Your task to perform on an android device: Go to sound settings Image 0: 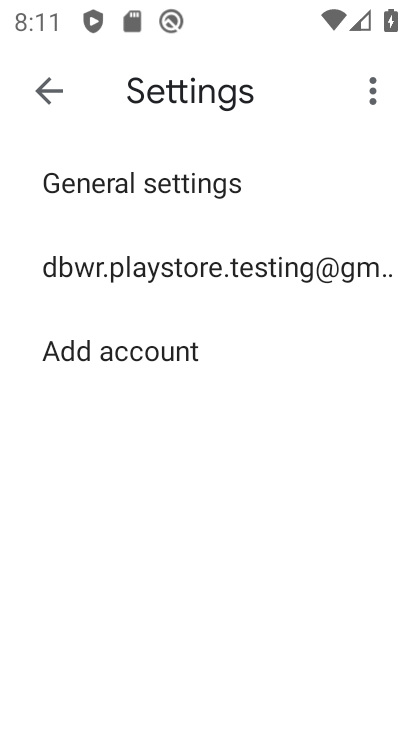
Step 0: press home button
Your task to perform on an android device: Go to sound settings Image 1: 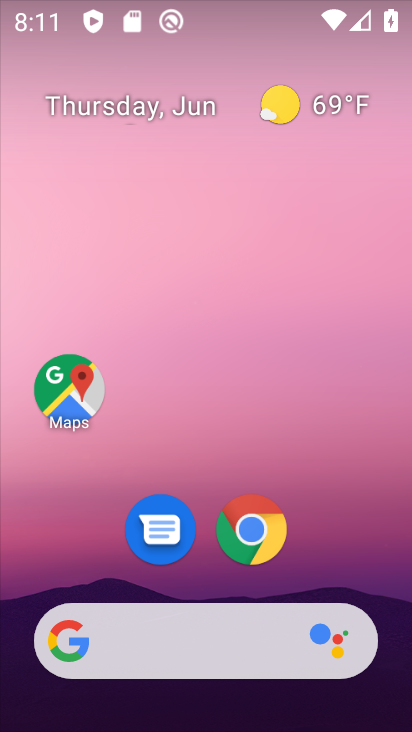
Step 1: drag from (181, 579) to (16, 103)
Your task to perform on an android device: Go to sound settings Image 2: 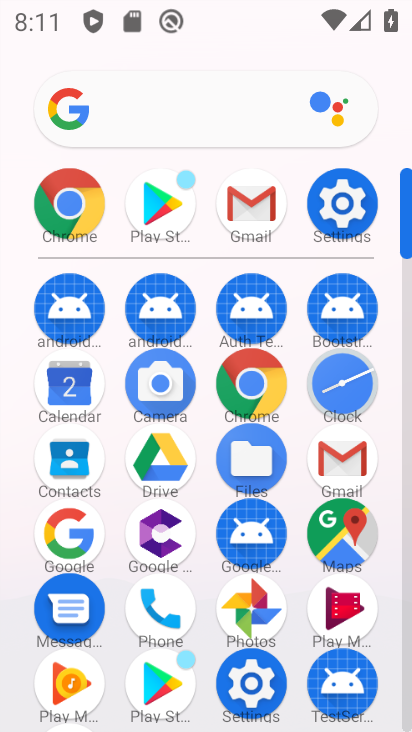
Step 2: click (335, 218)
Your task to perform on an android device: Go to sound settings Image 3: 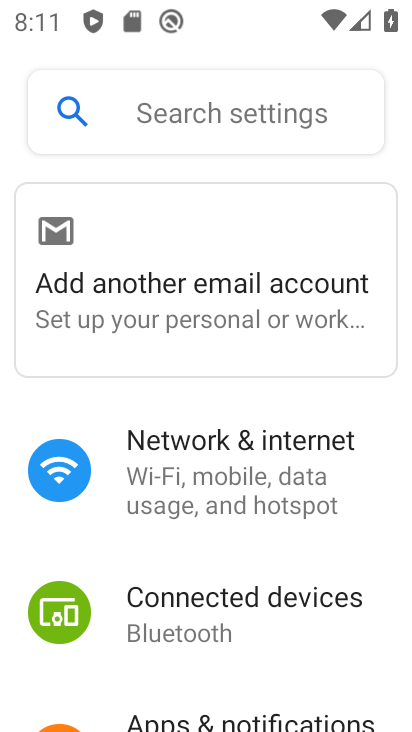
Step 3: drag from (319, 575) to (275, 174)
Your task to perform on an android device: Go to sound settings Image 4: 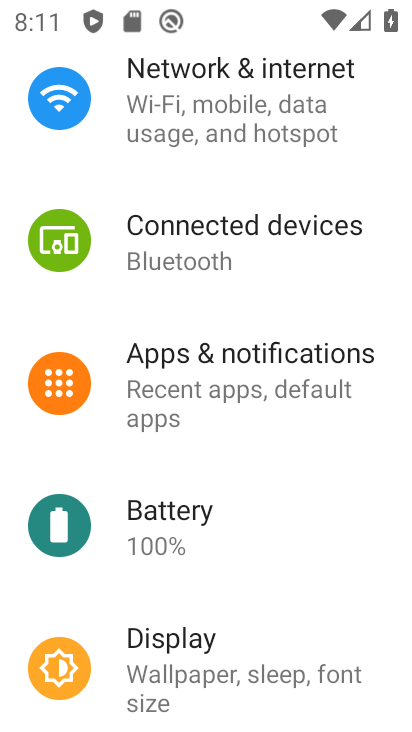
Step 4: drag from (274, 641) to (243, 290)
Your task to perform on an android device: Go to sound settings Image 5: 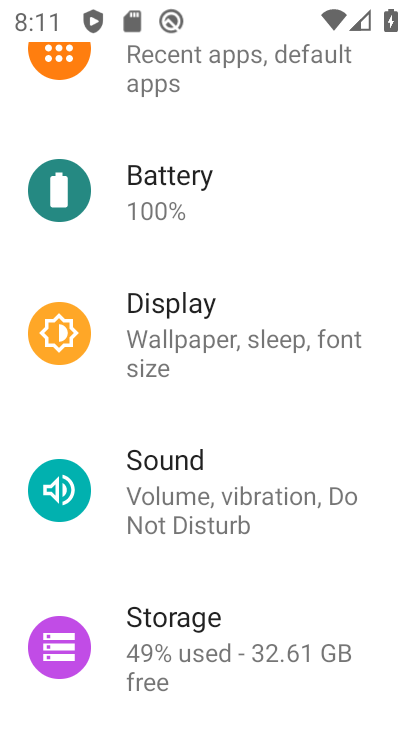
Step 5: click (191, 521)
Your task to perform on an android device: Go to sound settings Image 6: 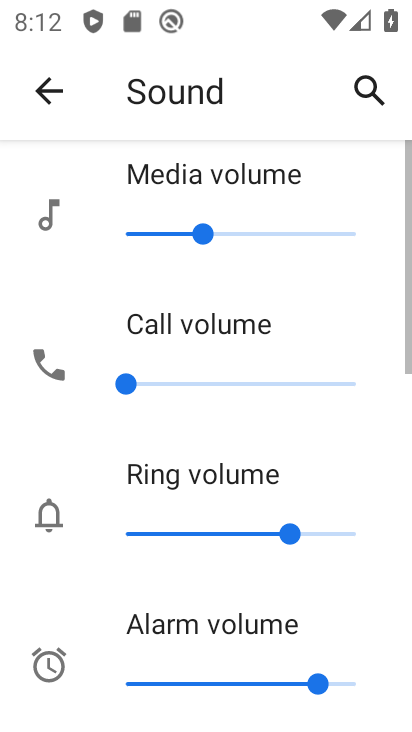
Step 6: task complete